Your task to perform on an android device: open app "Messenger Lite" Image 0: 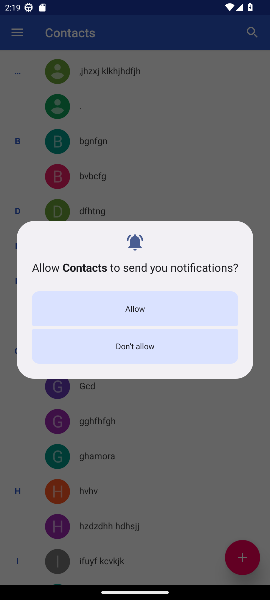
Step 0: press home button
Your task to perform on an android device: open app "Messenger Lite" Image 1: 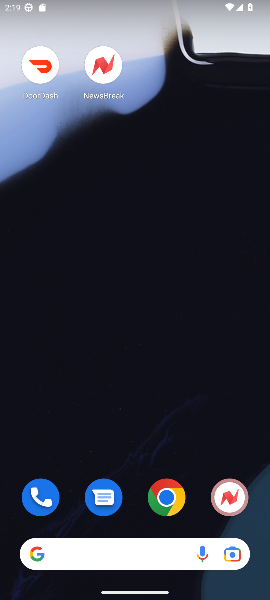
Step 1: drag from (122, 520) to (133, 262)
Your task to perform on an android device: open app "Messenger Lite" Image 2: 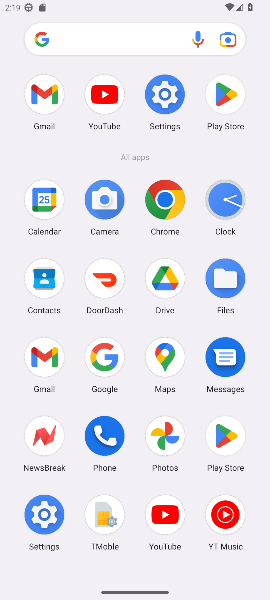
Step 2: click (221, 89)
Your task to perform on an android device: open app "Messenger Lite" Image 3: 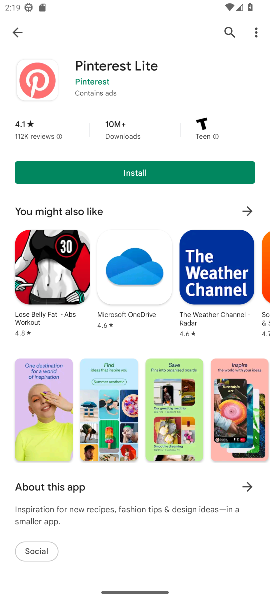
Step 3: click (17, 28)
Your task to perform on an android device: open app "Messenger Lite" Image 4: 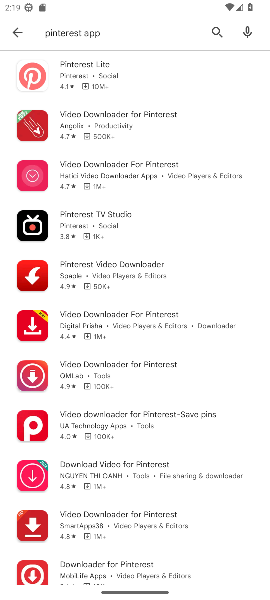
Step 4: click (18, 31)
Your task to perform on an android device: open app "Messenger Lite" Image 5: 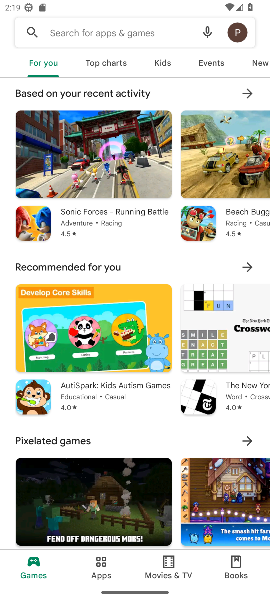
Step 5: click (129, 24)
Your task to perform on an android device: open app "Messenger Lite" Image 6: 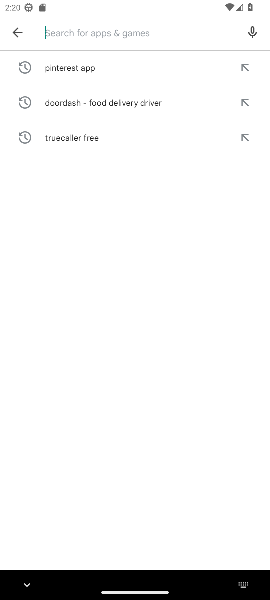
Step 6: type "Messenger Lite "
Your task to perform on an android device: open app "Messenger Lite" Image 7: 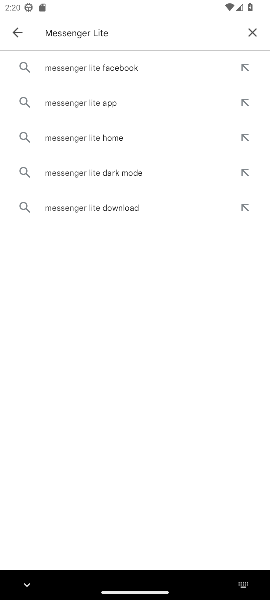
Step 7: click (93, 66)
Your task to perform on an android device: open app "Messenger Lite" Image 8: 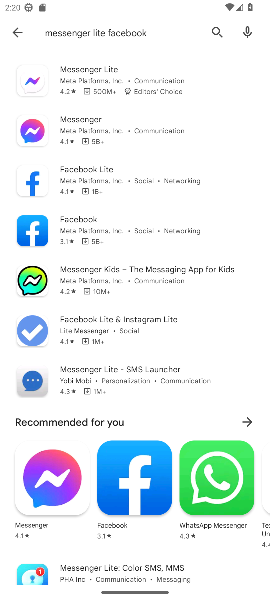
Step 8: click (102, 83)
Your task to perform on an android device: open app "Messenger Lite" Image 9: 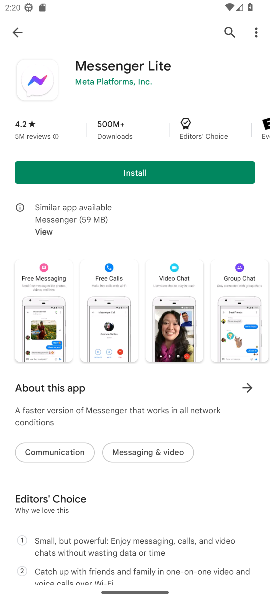
Step 9: click (161, 172)
Your task to perform on an android device: open app "Messenger Lite" Image 10: 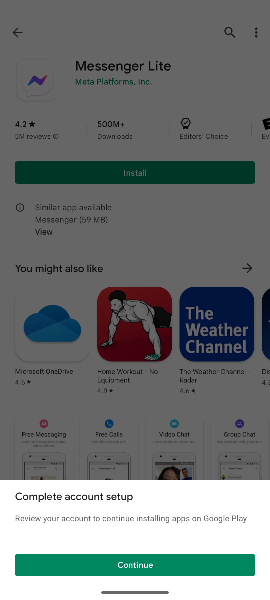
Step 10: task complete